Your task to perform on an android device: When is my next meeting? Image 0: 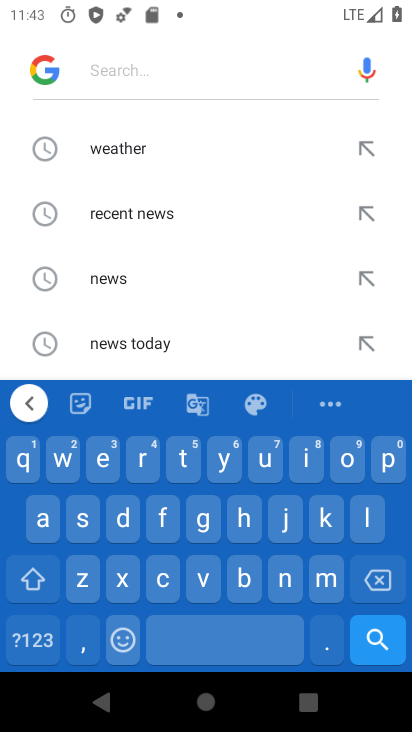
Step 0: press back button
Your task to perform on an android device: When is my next meeting? Image 1: 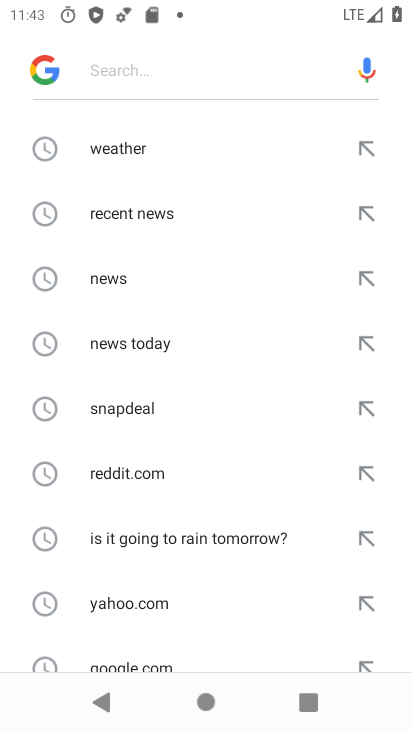
Step 1: press back button
Your task to perform on an android device: When is my next meeting? Image 2: 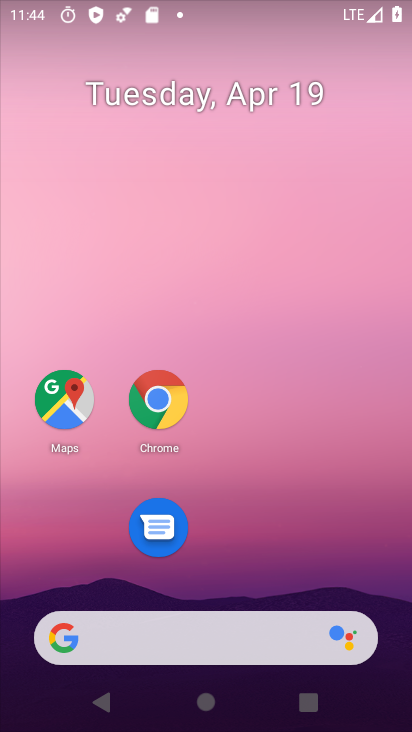
Step 2: drag from (264, 666) to (260, 264)
Your task to perform on an android device: When is my next meeting? Image 3: 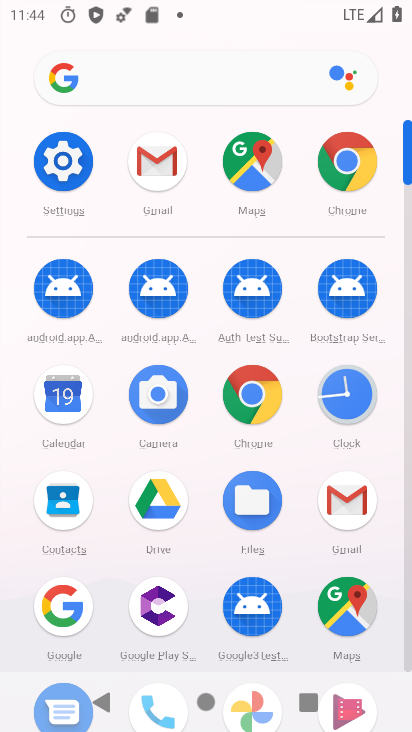
Step 3: click (56, 382)
Your task to perform on an android device: When is my next meeting? Image 4: 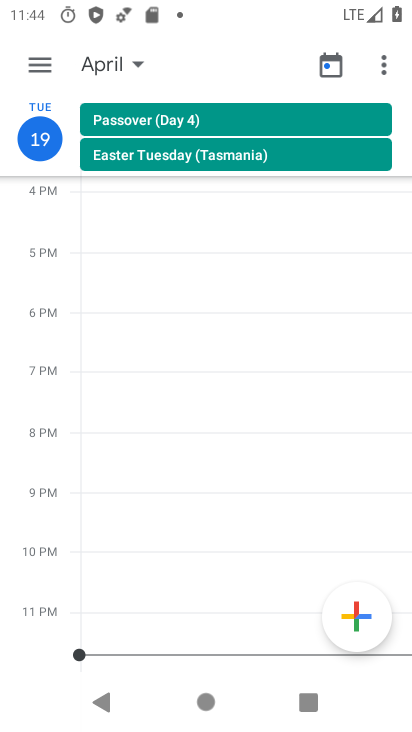
Step 4: click (45, 70)
Your task to perform on an android device: When is my next meeting? Image 5: 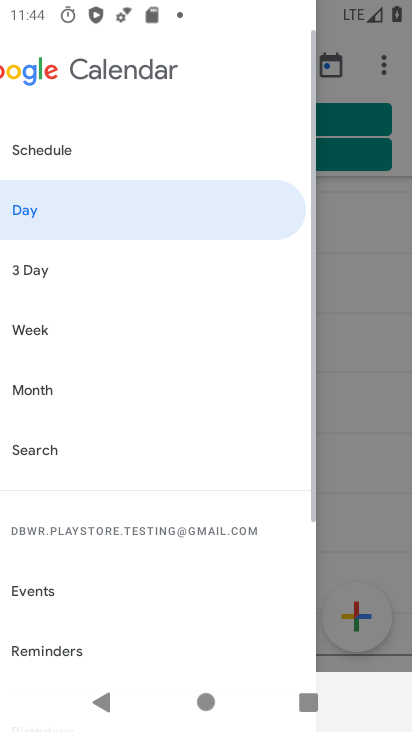
Step 5: click (53, 70)
Your task to perform on an android device: When is my next meeting? Image 6: 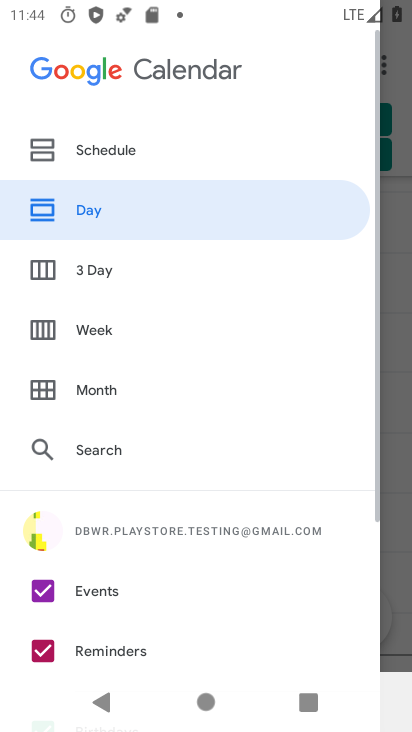
Step 6: click (107, 147)
Your task to perform on an android device: When is my next meeting? Image 7: 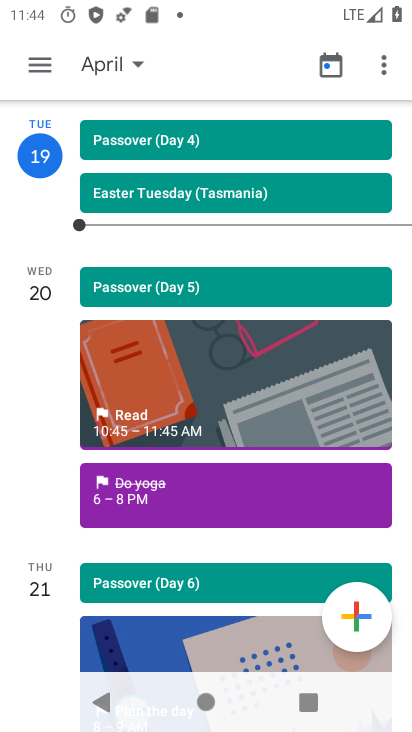
Step 7: task complete